Your task to perform on an android device: change notification settings in the gmail app Image 0: 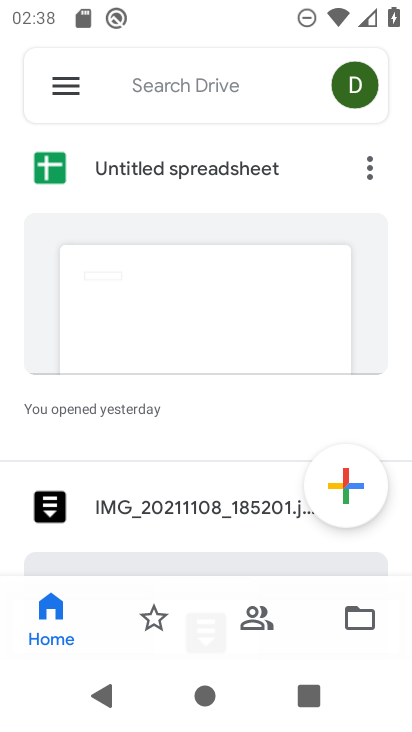
Step 0: press home button
Your task to perform on an android device: change notification settings in the gmail app Image 1: 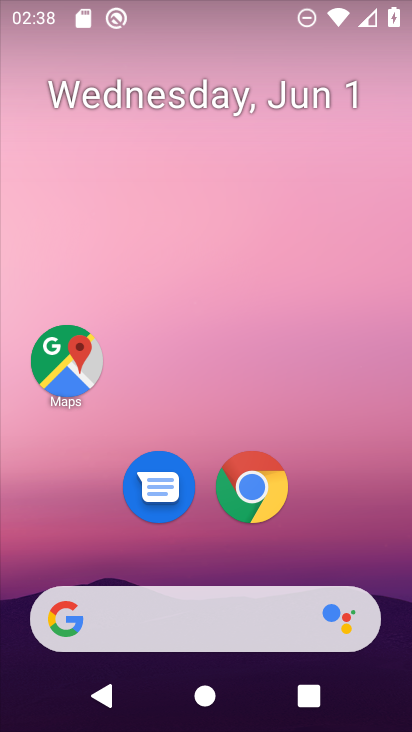
Step 1: drag from (370, 555) to (353, 264)
Your task to perform on an android device: change notification settings in the gmail app Image 2: 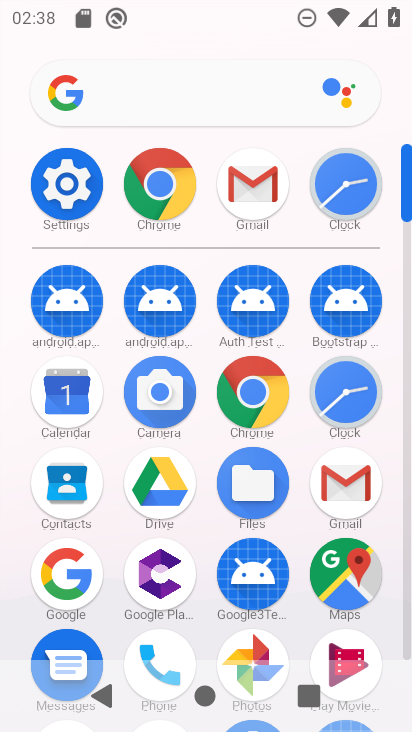
Step 2: click (360, 481)
Your task to perform on an android device: change notification settings in the gmail app Image 3: 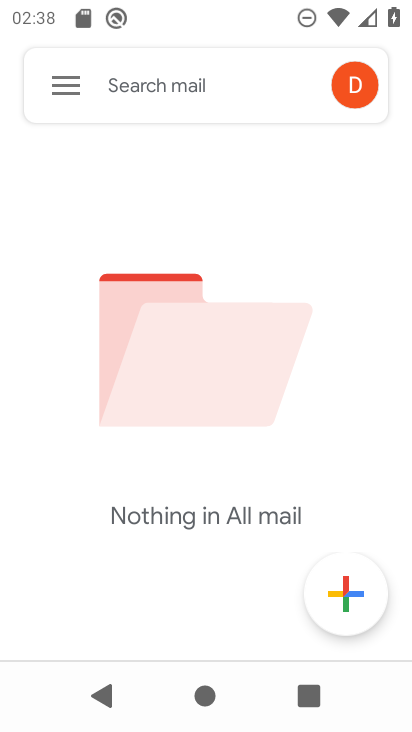
Step 3: click (85, 69)
Your task to perform on an android device: change notification settings in the gmail app Image 4: 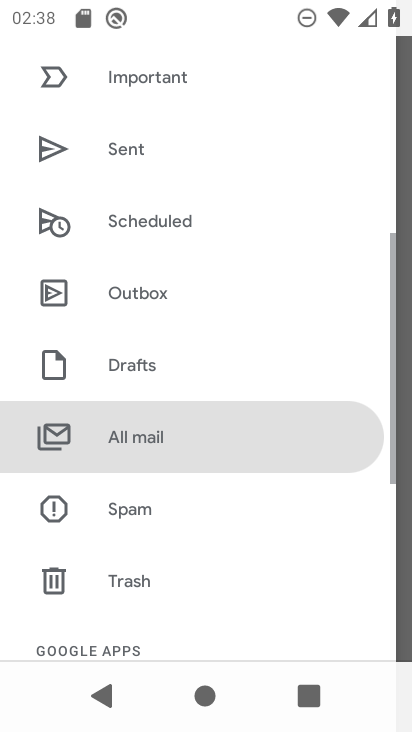
Step 4: drag from (179, 573) to (246, 226)
Your task to perform on an android device: change notification settings in the gmail app Image 5: 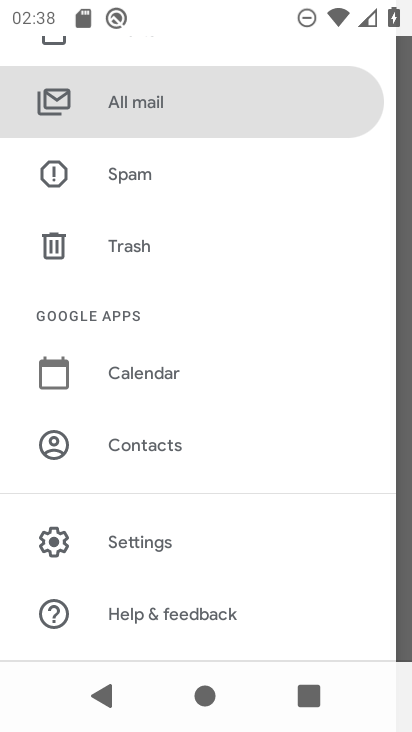
Step 5: click (152, 533)
Your task to perform on an android device: change notification settings in the gmail app Image 6: 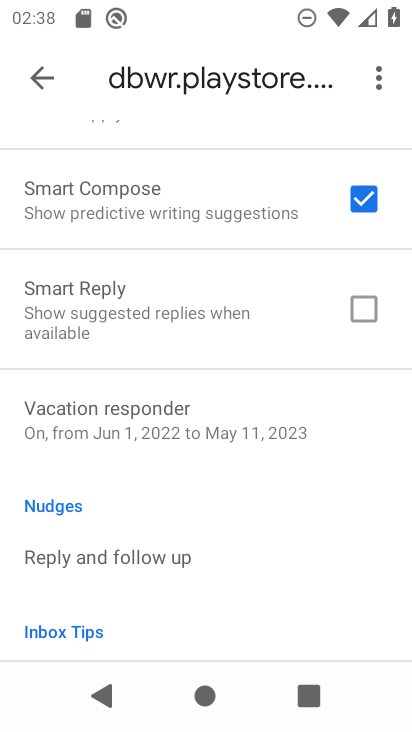
Step 6: drag from (215, 566) to (288, 3)
Your task to perform on an android device: change notification settings in the gmail app Image 7: 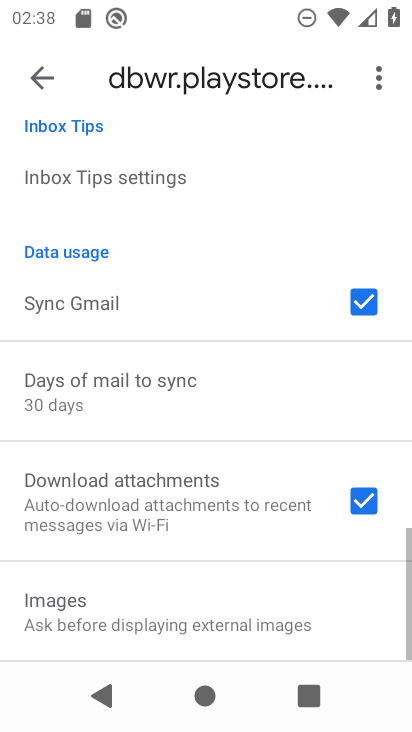
Step 7: drag from (173, 170) to (205, 531)
Your task to perform on an android device: change notification settings in the gmail app Image 8: 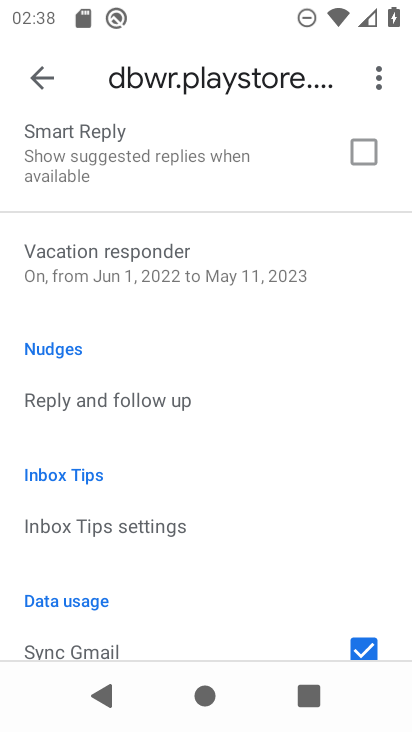
Step 8: drag from (174, 264) to (198, 611)
Your task to perform on an android device: change notification settings in the gmail app Image 9: 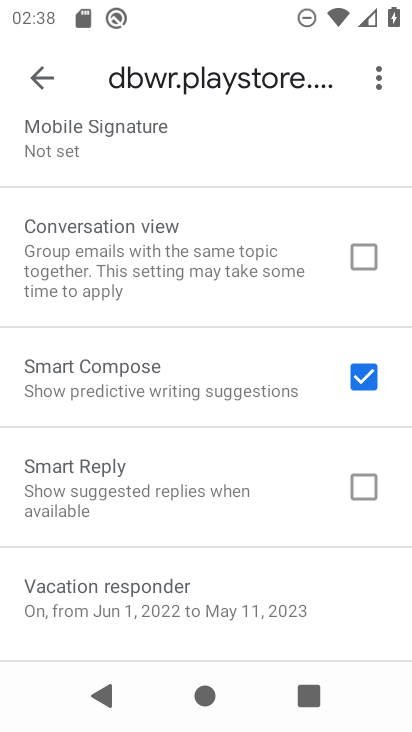
Step 9: drag from (169, 192) to (192, 571)
Your task to perform on an android device: change notification settings in the gmail app Image 10: 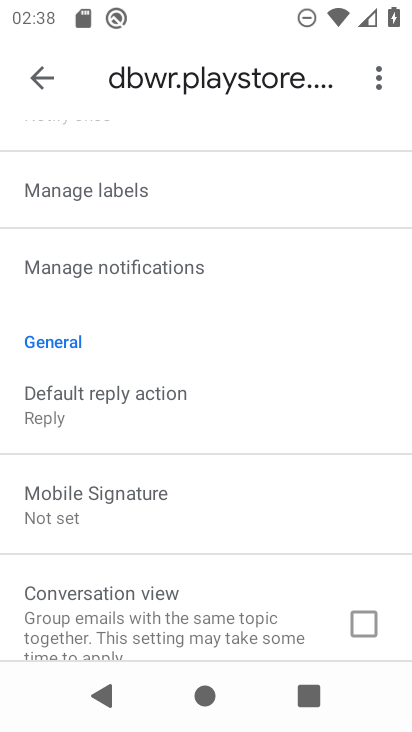
Step 10: drag from (193, 282) to (153, 602)
Your task to perform on an android device: change notification settings in the gmail app Image 11: 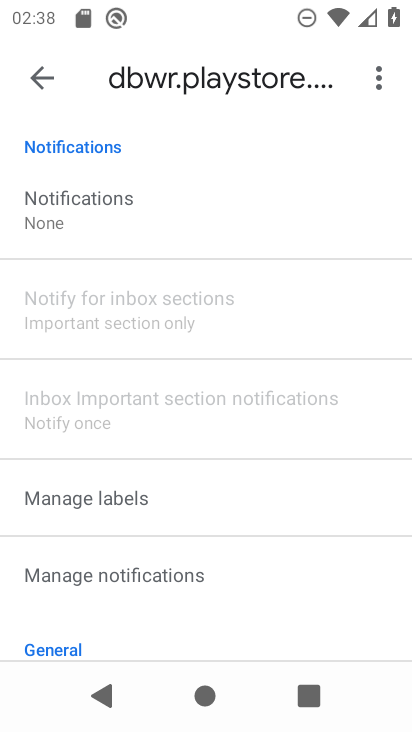
Step 11: drag from (241, 226) to (171, 660)
Your task to perform on an android device: change notification settings in the gmail app Image 12: 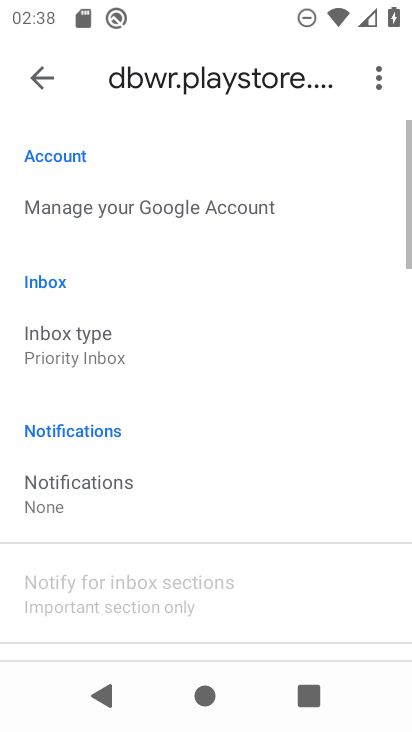
Step 12: drag from (193, 283) to (157, 609)
Your task to perform on an android device: change notification settings in the gmail app Image 13: 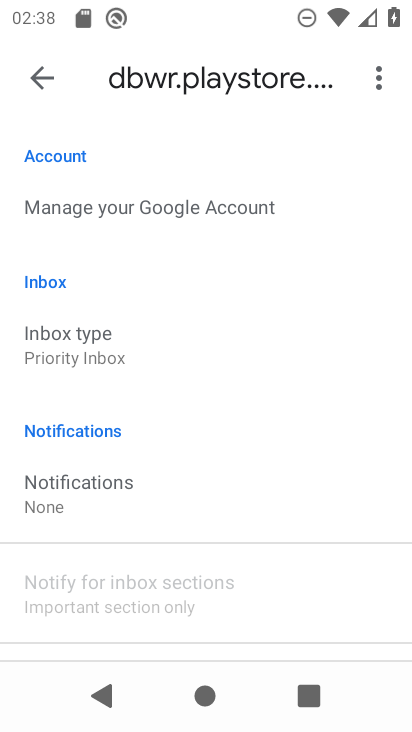
Step 13: click (109, 512)
Your task to perform on an android device: change notification settings in the gmail app Image 14: 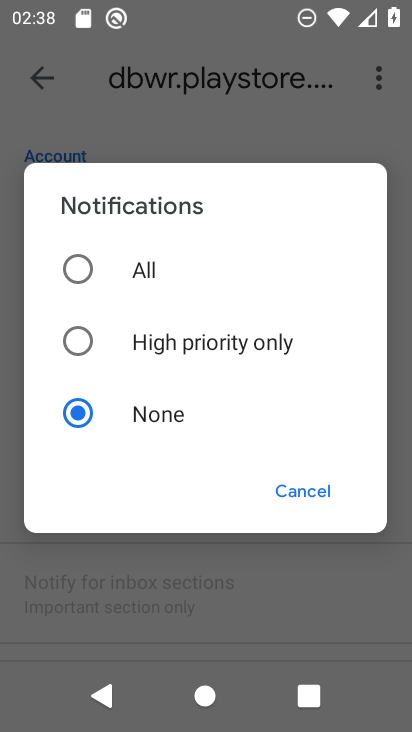
Step 14: click (131, 289)
Your task to perform on an android device: change notification settings in the gmail app Image 15: 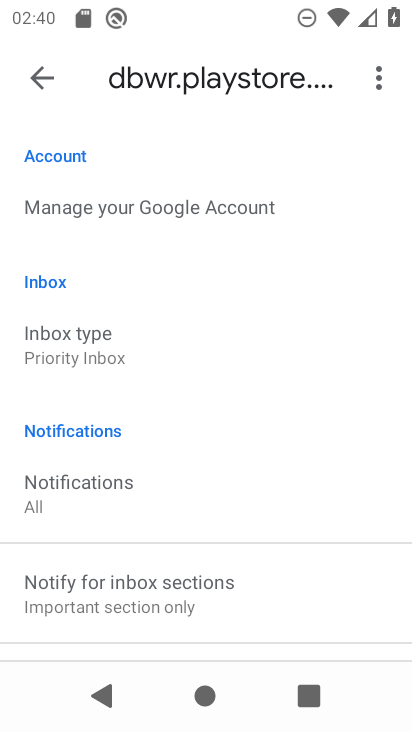
Step 15: task complete